Your task to perform on an android device: toggle location history Image 0: 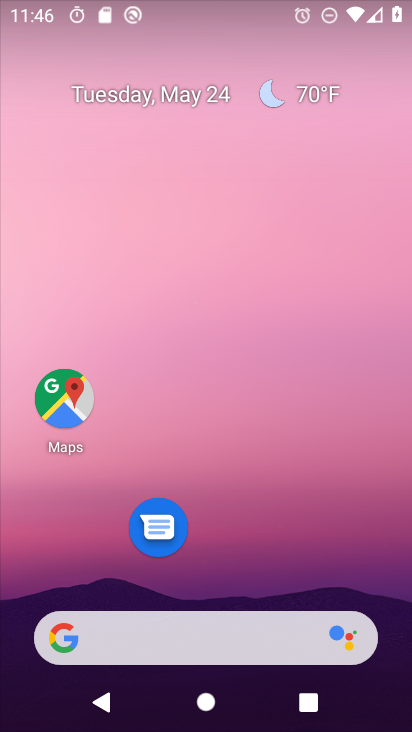
Step 0: drag from (274, 563) to (266, 28)
Your task to perform on an android device: toggle location history Image 1: 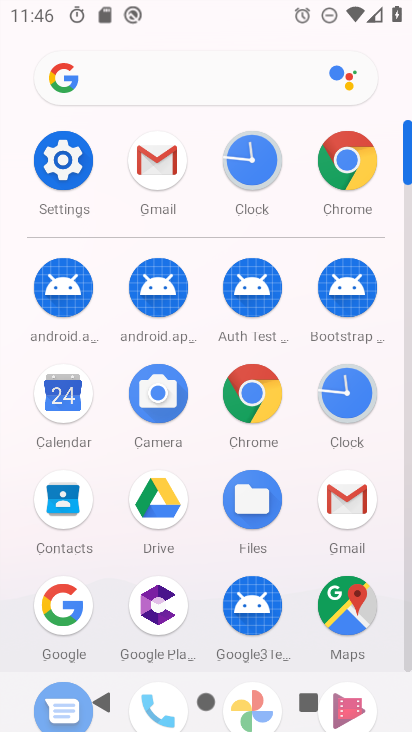
Step 1: click (69, 161)
Your task to perform on an android device: toggle location history Image 2: 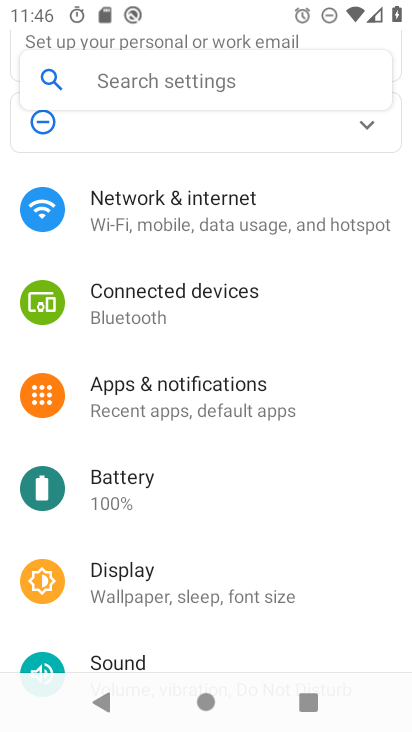
Step 2: drag from (256, 549) to (229, 155)
Your task to perform on an android device: toggle location history Image 3: 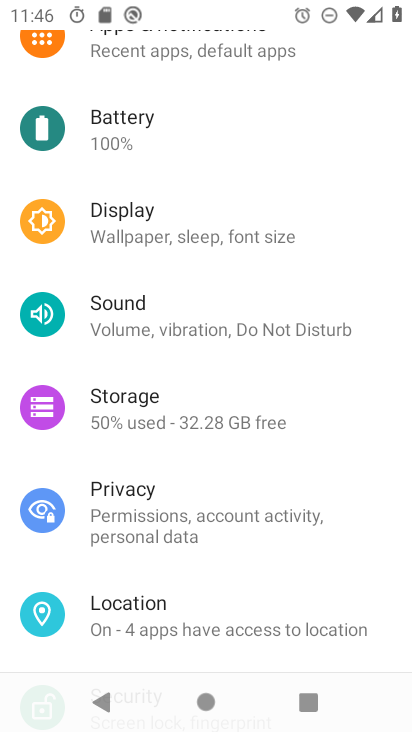
Step 3: drag from (194, 592) to (208, 392)
Your task to perform on an android device: toggle location history Image 4: 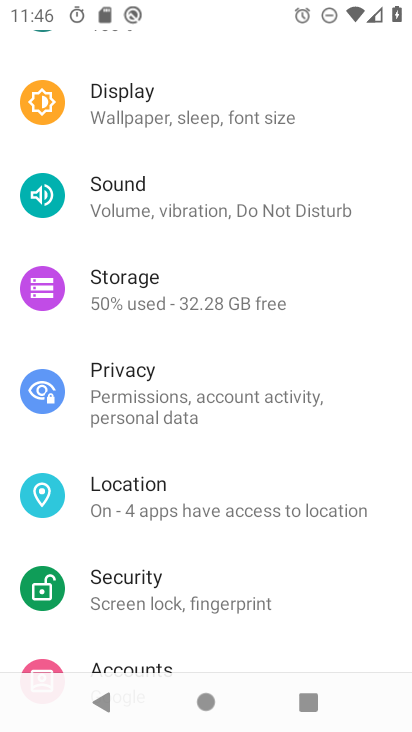
Step 4: click (173, 496)
Your task to perform on an android device: toggle location history Image 5: 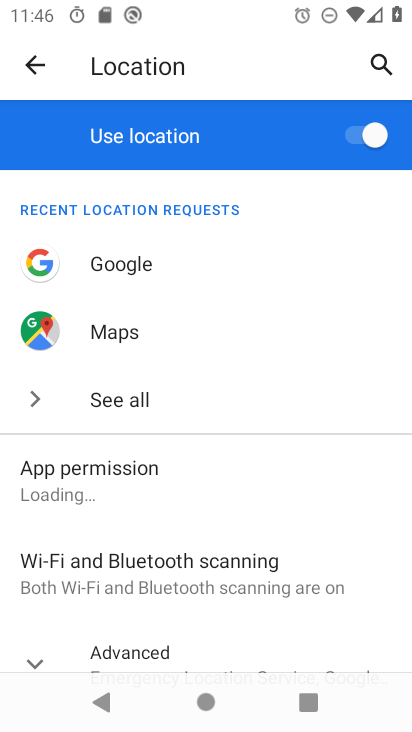
Step 5: drag from (228, 373) to (263, 121)
Your task to perform on an android device: toggle location history Image 6: 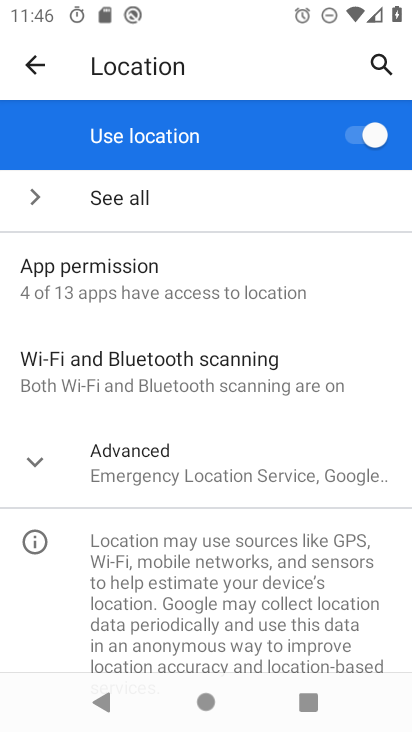
Step 6: click (168, 477)
Your task to perform on an android device: toggle location history Image 7: 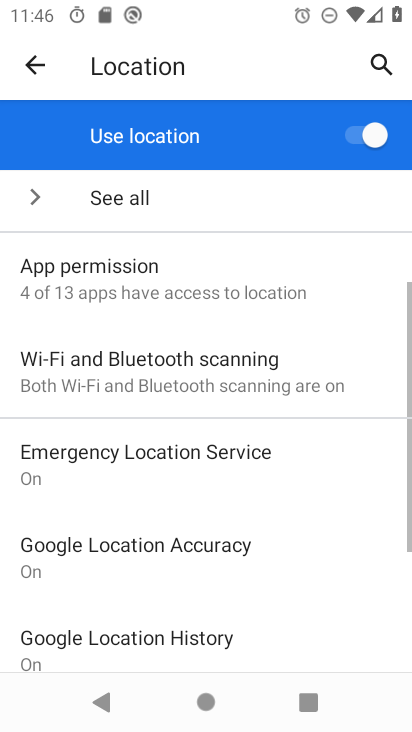
Step 7: drag from (258, 523) to (256, 286)
Your task to perform on an android device: toggle location history Image 8: 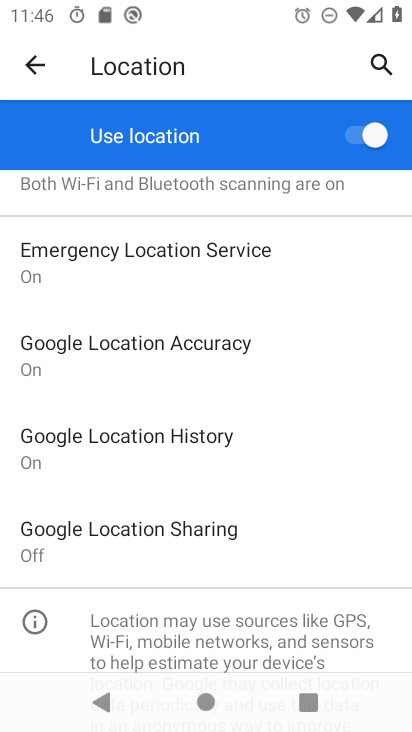
Step 8: click (167, 448)
Your task to perform on an android device: toggle location history Image 9: 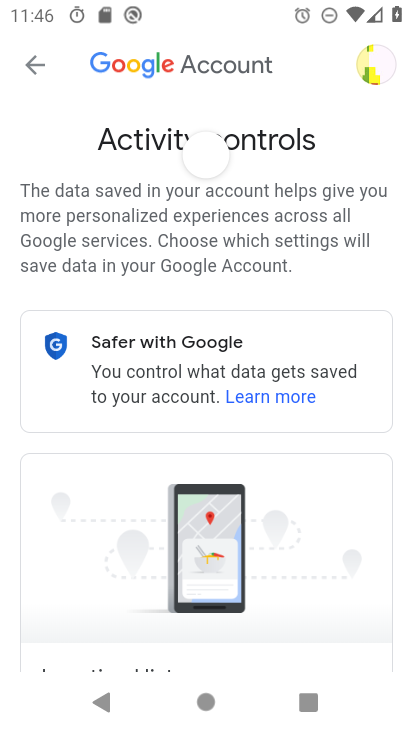
Step 9: drag from (308, 591) to (301, 40)
Your task to perform on an android device: toggle location history Image 10: 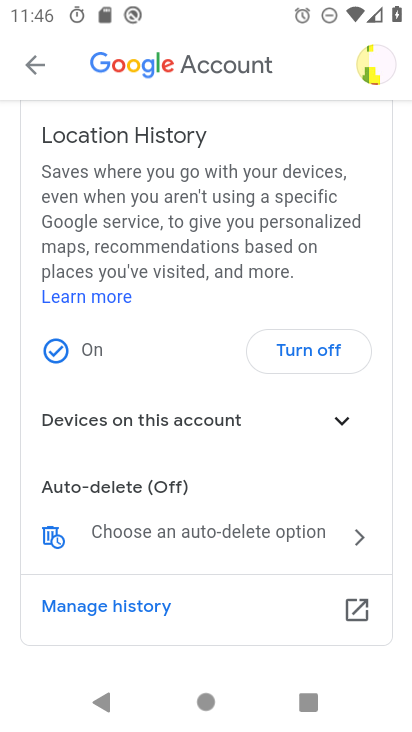
Step 10: drag from (271, 559) to (241, 395)
Your task to perform on an android device: toggle location history Image 11: 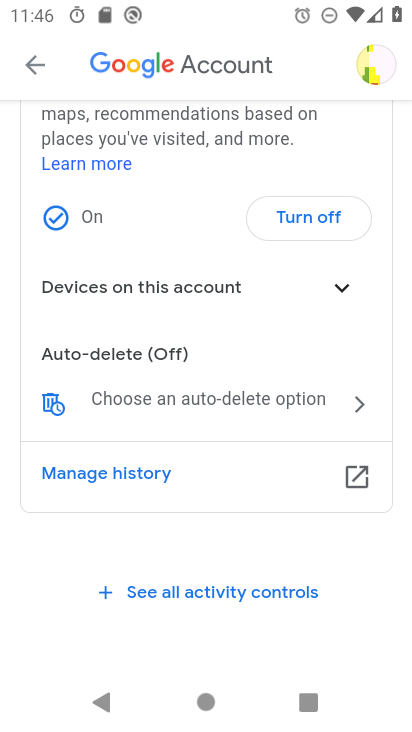
Step 11: click (304, 227)
Your task to perform on an android device: toggle location history Image 12: 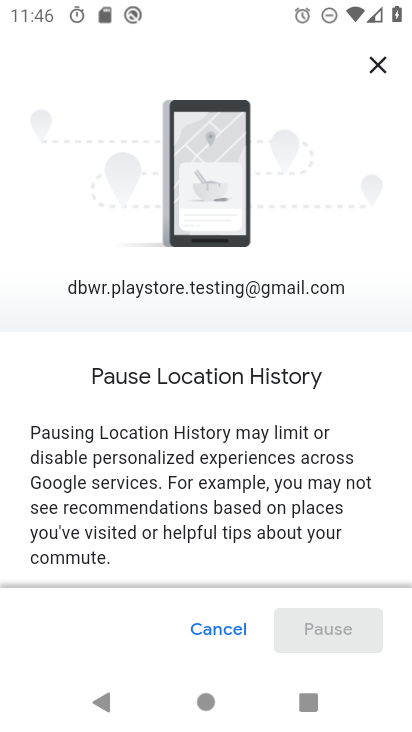
Step 12: drag from (329, 578) to (347, 57)
Your task to perform on an android device: toggle location history Image 13: 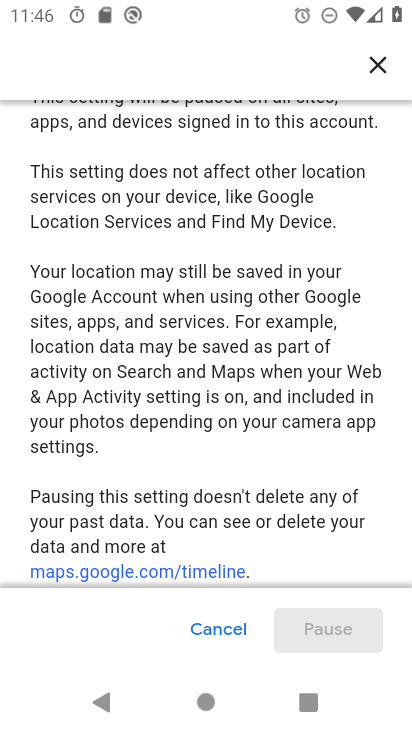
Step 13: drag from (317, 521) to (328, 114)
Your task to perform on an android device: toggle location history Image 14: 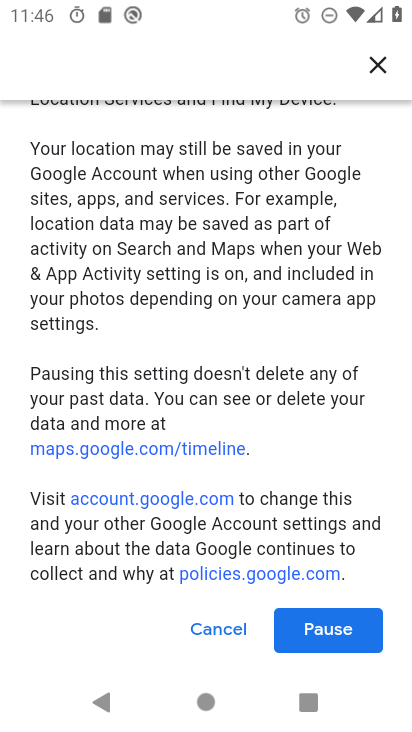
Step 14: click (331, 624)
Your task to perform on an android device: toggle location history Image 15: 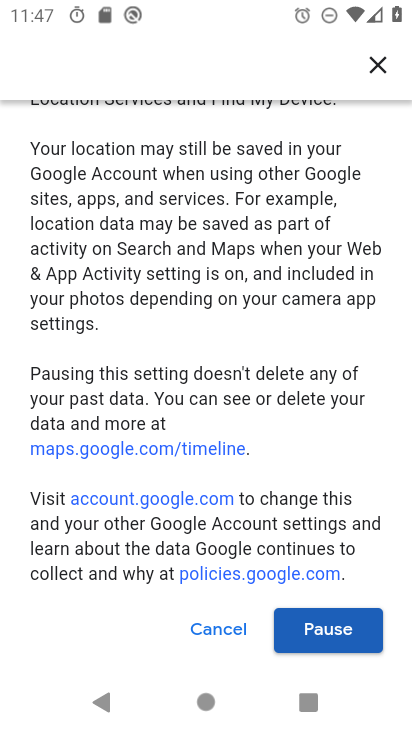
Step 15: click (349, 633)
Your task to perform on an android device: toggle location history Image 16: 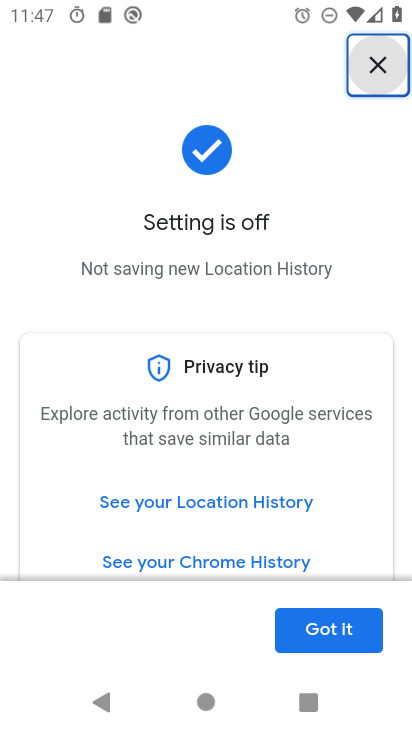
Step 16: click (326, 630)
Your task to perform on an android device: toggle location history Image 17: 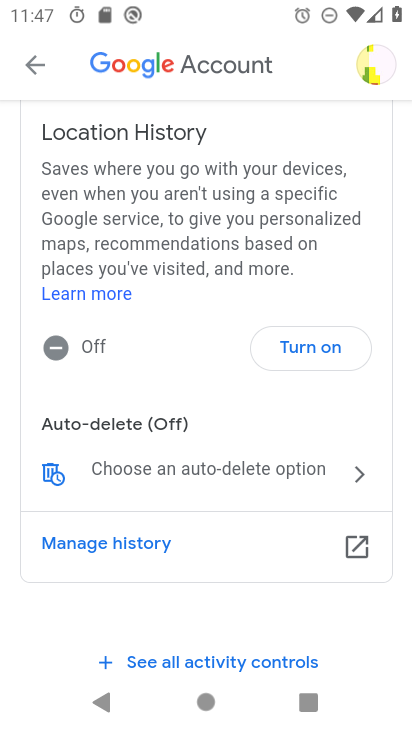
Step 17: task complete